Your task to perform on an android device: Go to Reddit.com Image 0: 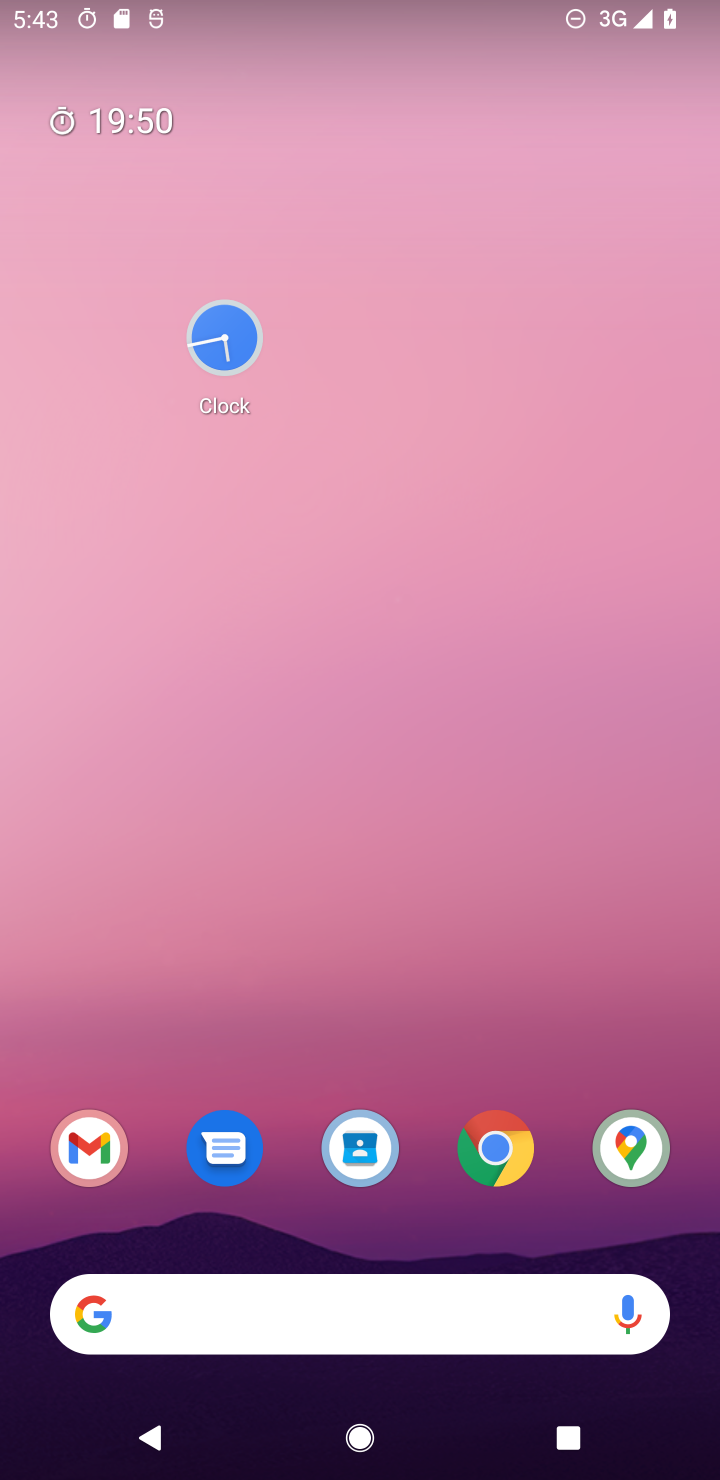
Step 0: drag from (402, 639) to (339, 40)
Your task to perform on an android device: Go to Reddit.com Image 1: 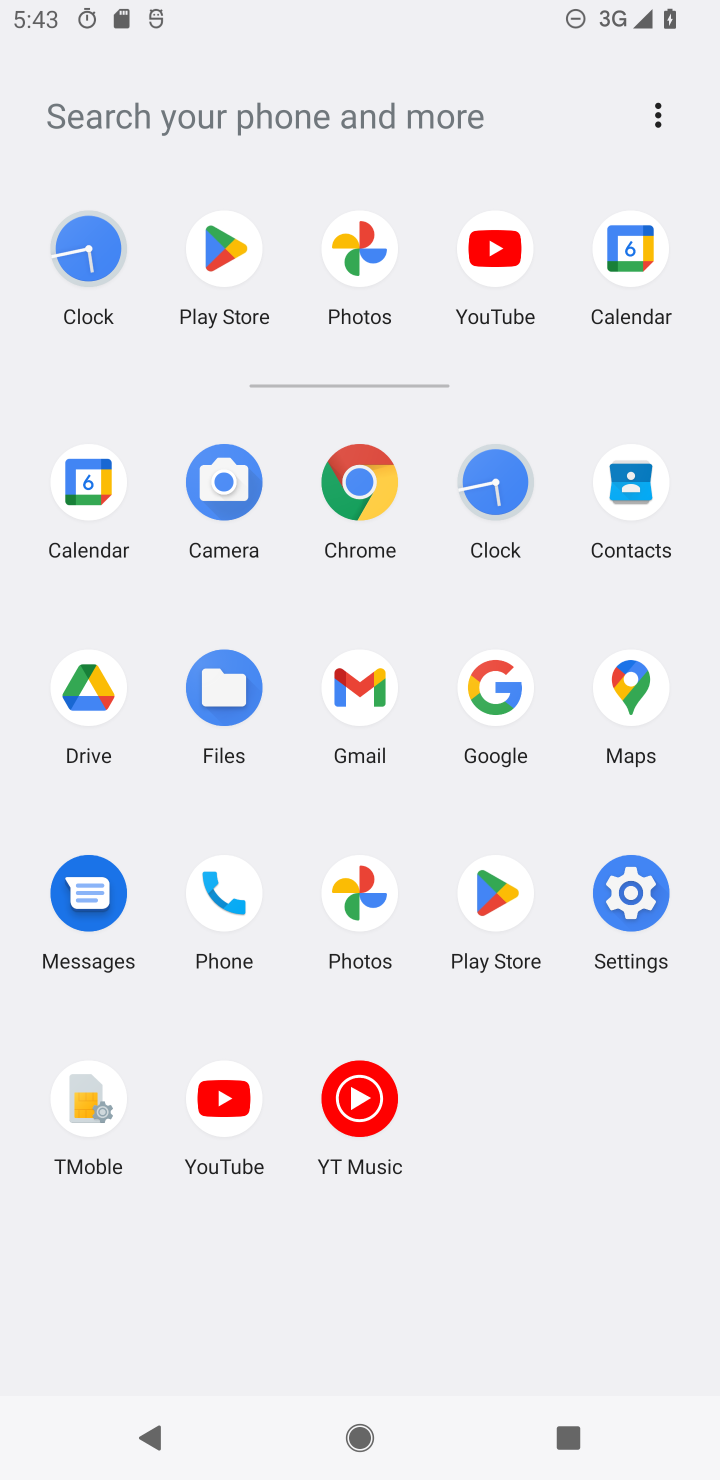
Step 1: click (369, 475)
Your task to perform on an android device: Go to Reddit.com Image 2: 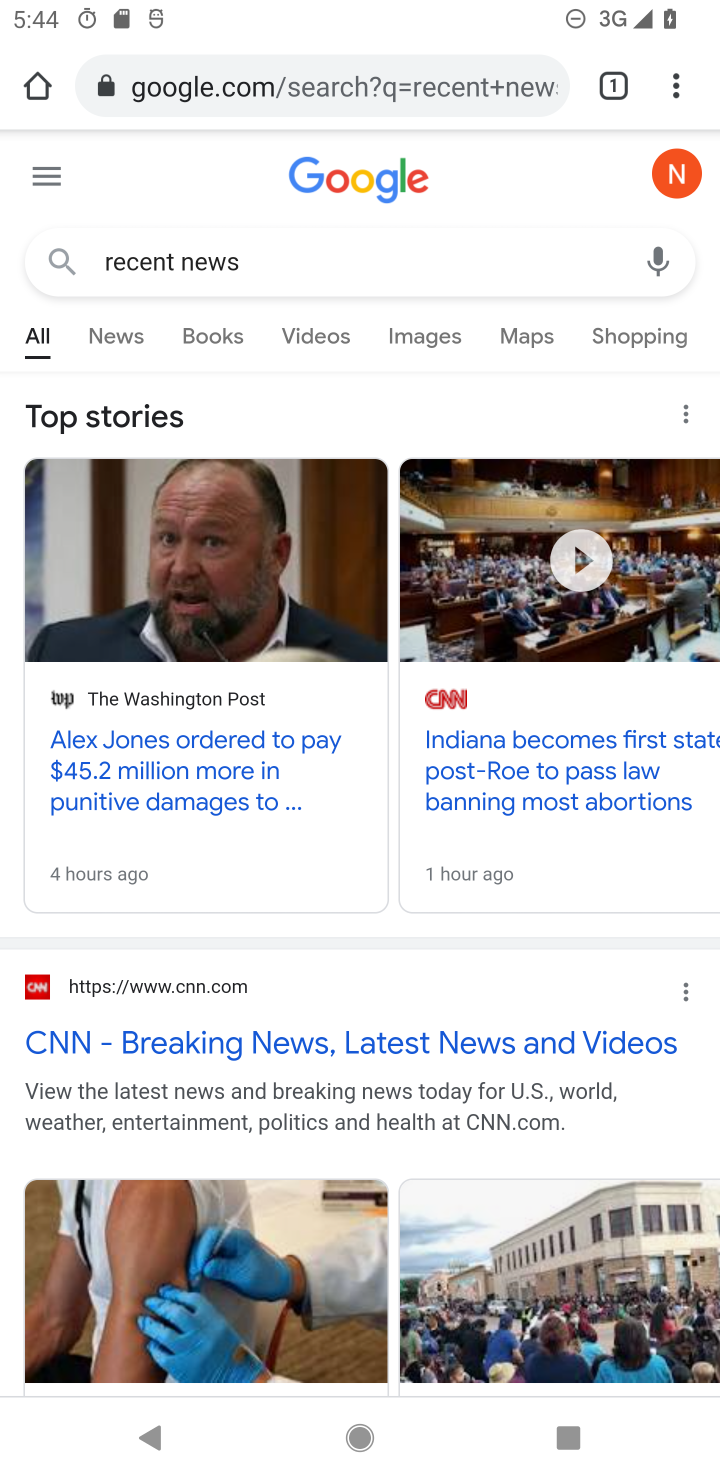
Step 2: click (395, 88)
Your task to perform on an android device: Go to Reddit.com Image 3: 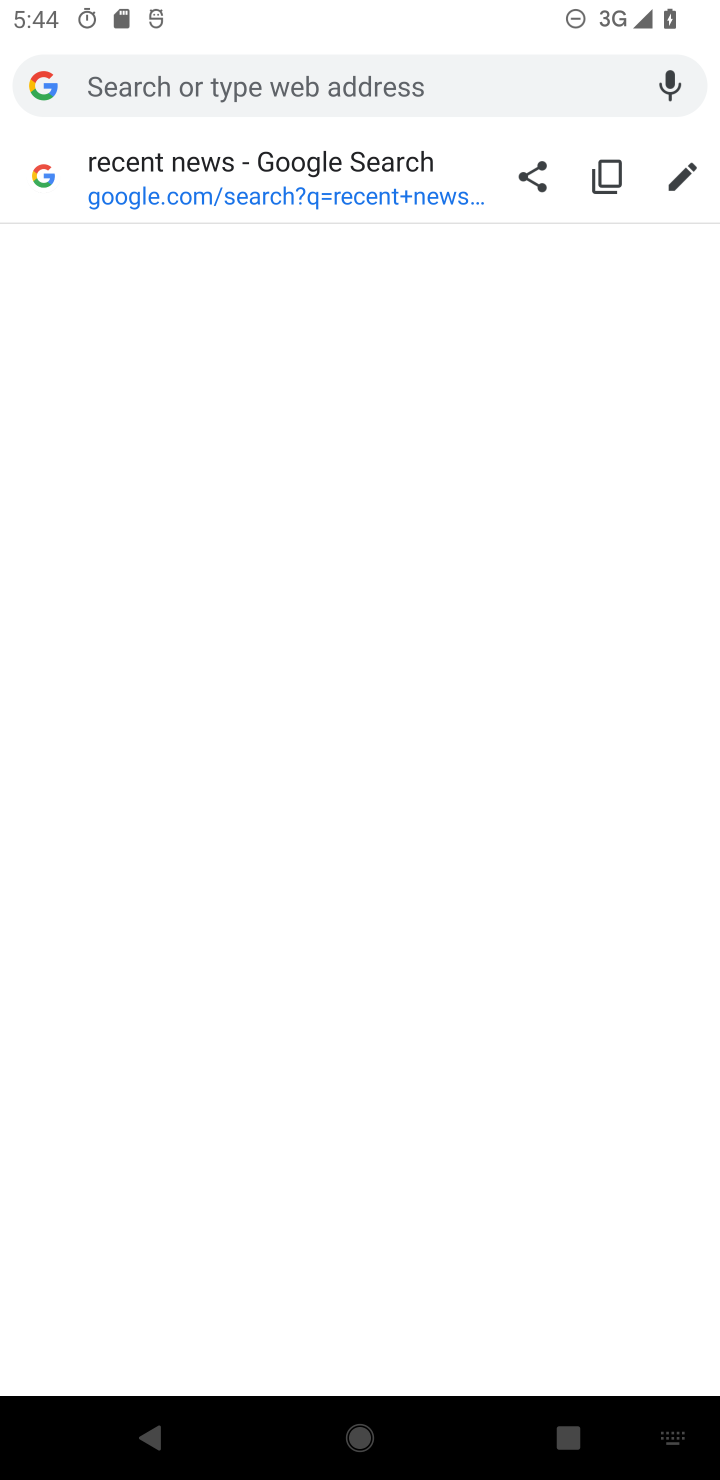
Step 3: type "reddit.com"
Your task to perform on an android device: Go to Reddit.com Image 4: 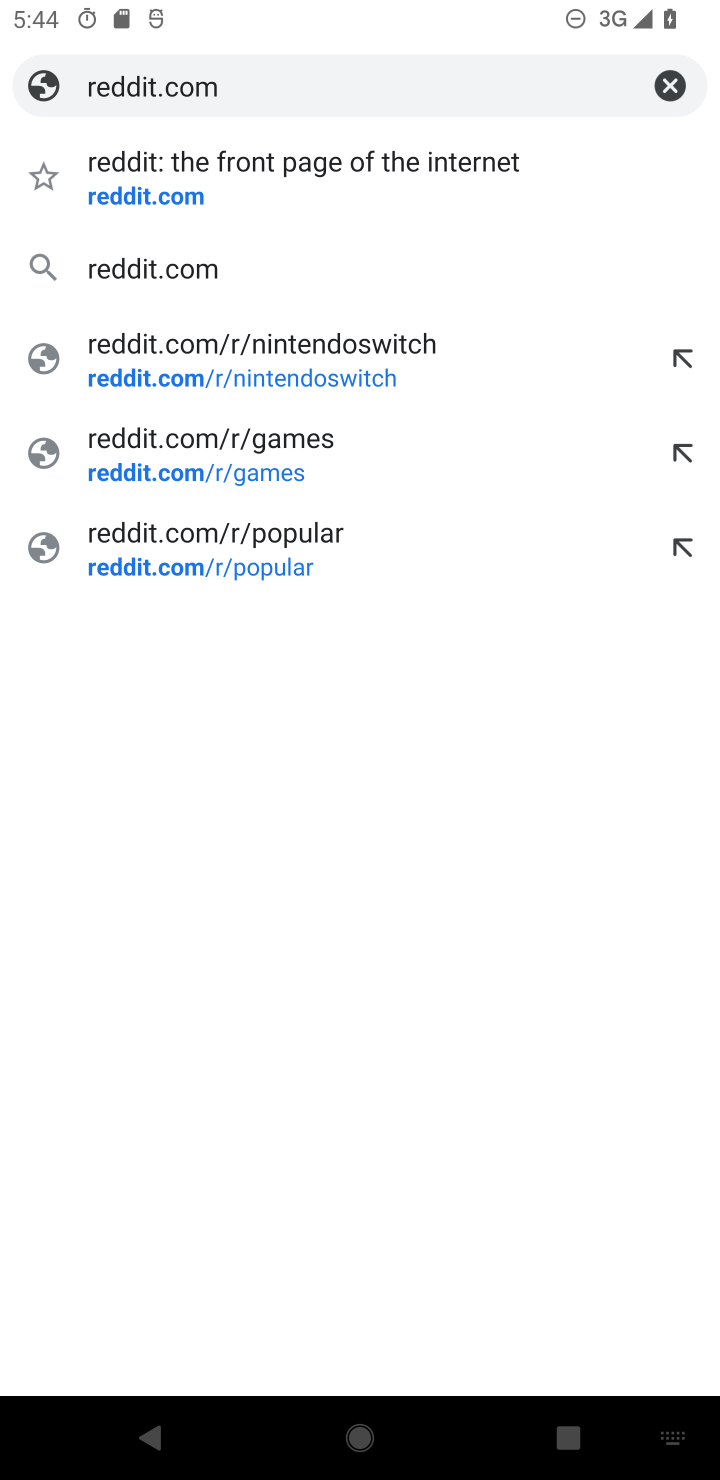
Step 4: click (181, 179)
Your task to perform on an android device: Go to Reddit.com Image 5: 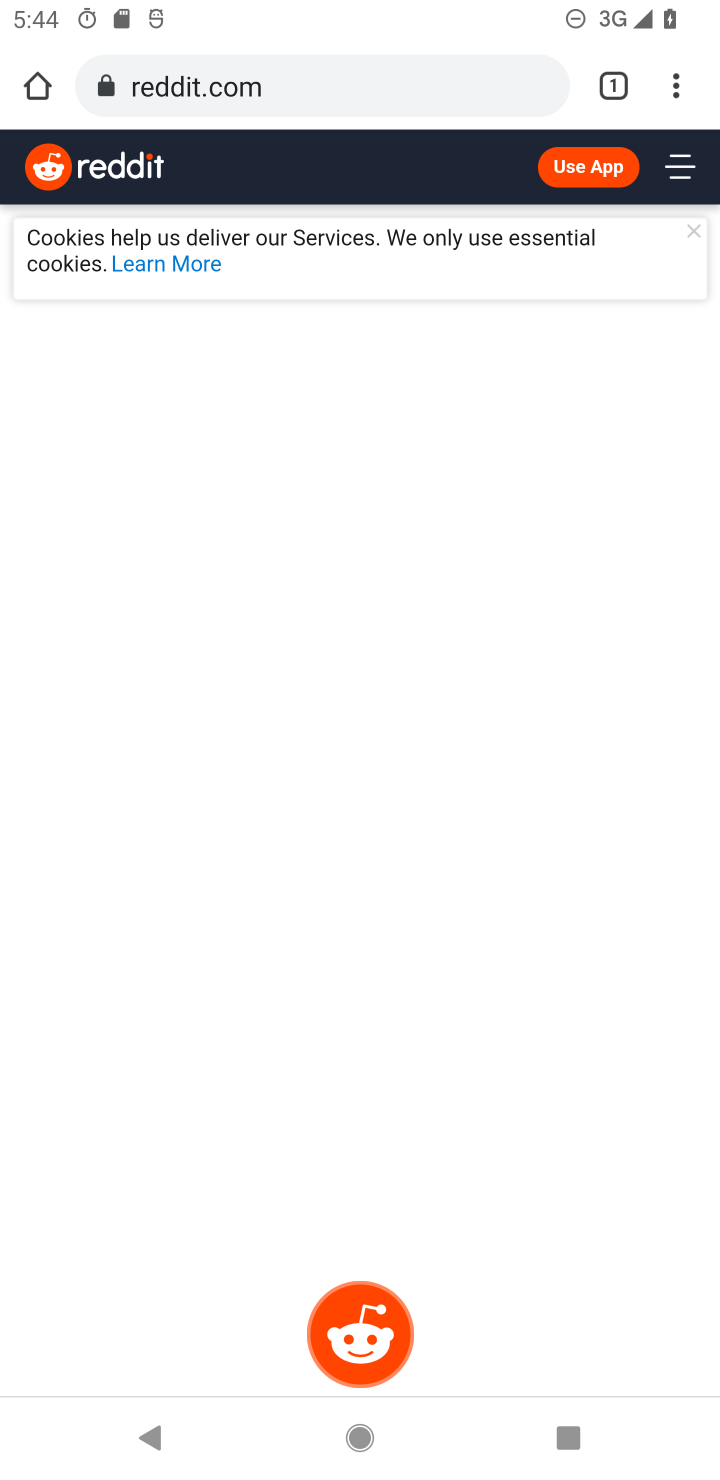
Step 5: drag from (533, 738) to (640, 334)
Your task to perform on an android device: Go to Reddit.com Image 6: 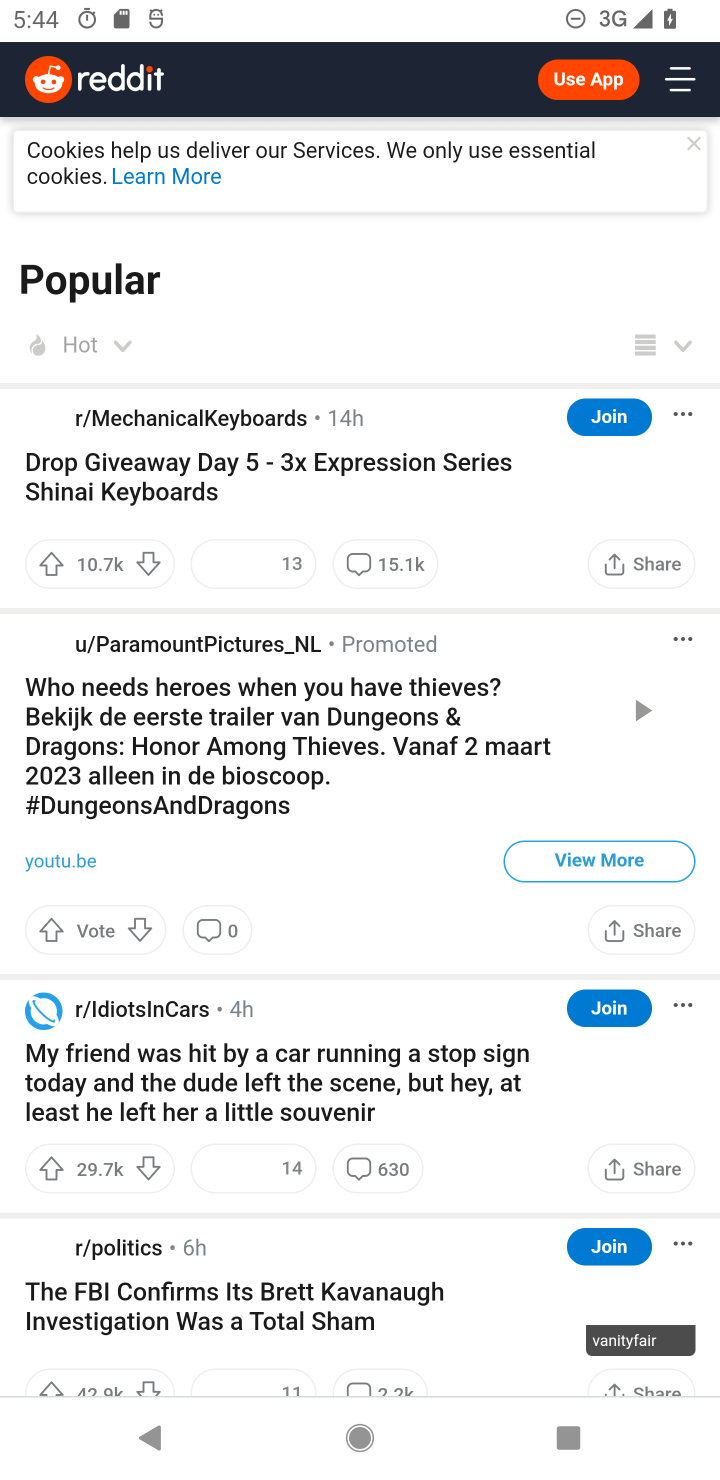
Step 6: drag from (513, 905) to (576, 454)
Your task to perform on an android device: Go to Reddit.com Image 7: 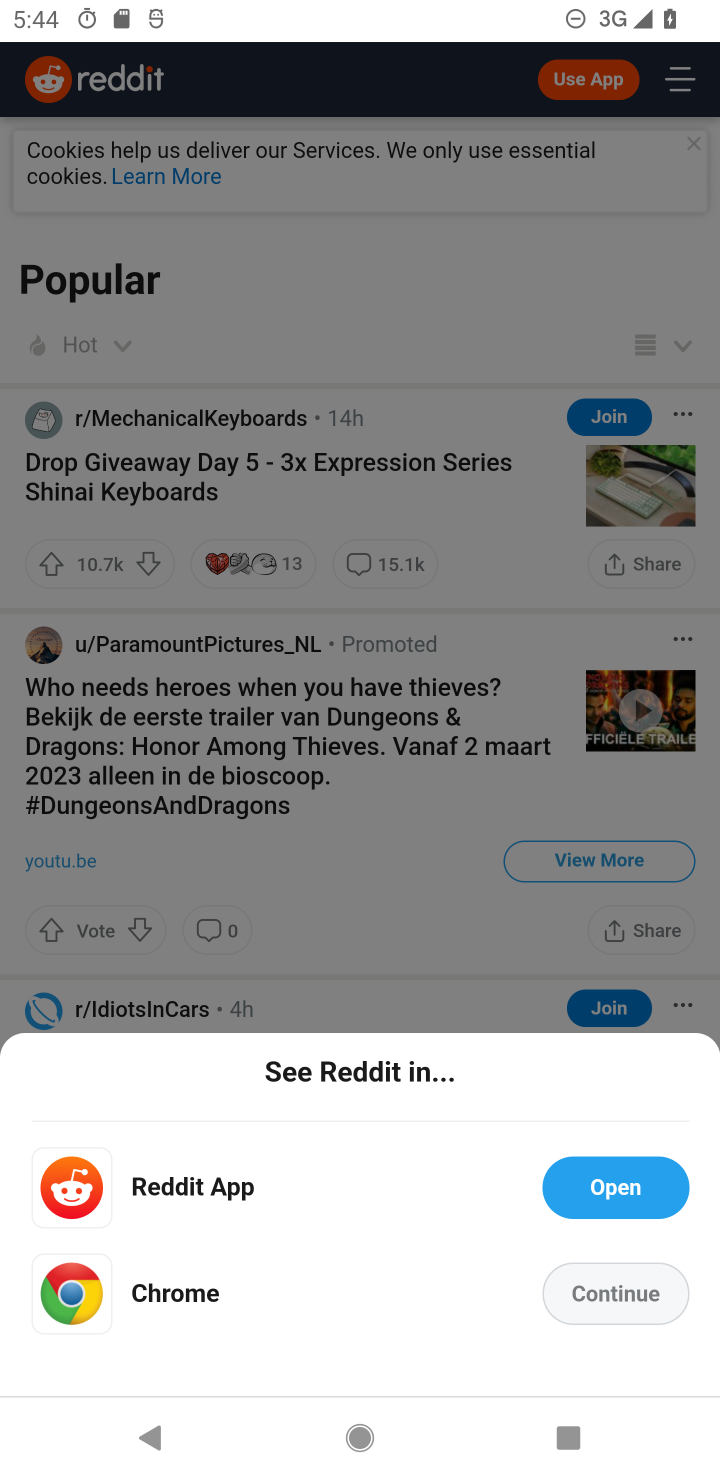
Step 7: click (313, 53)
Your task to perform on an android device: Go to Reddit.com Image 8: 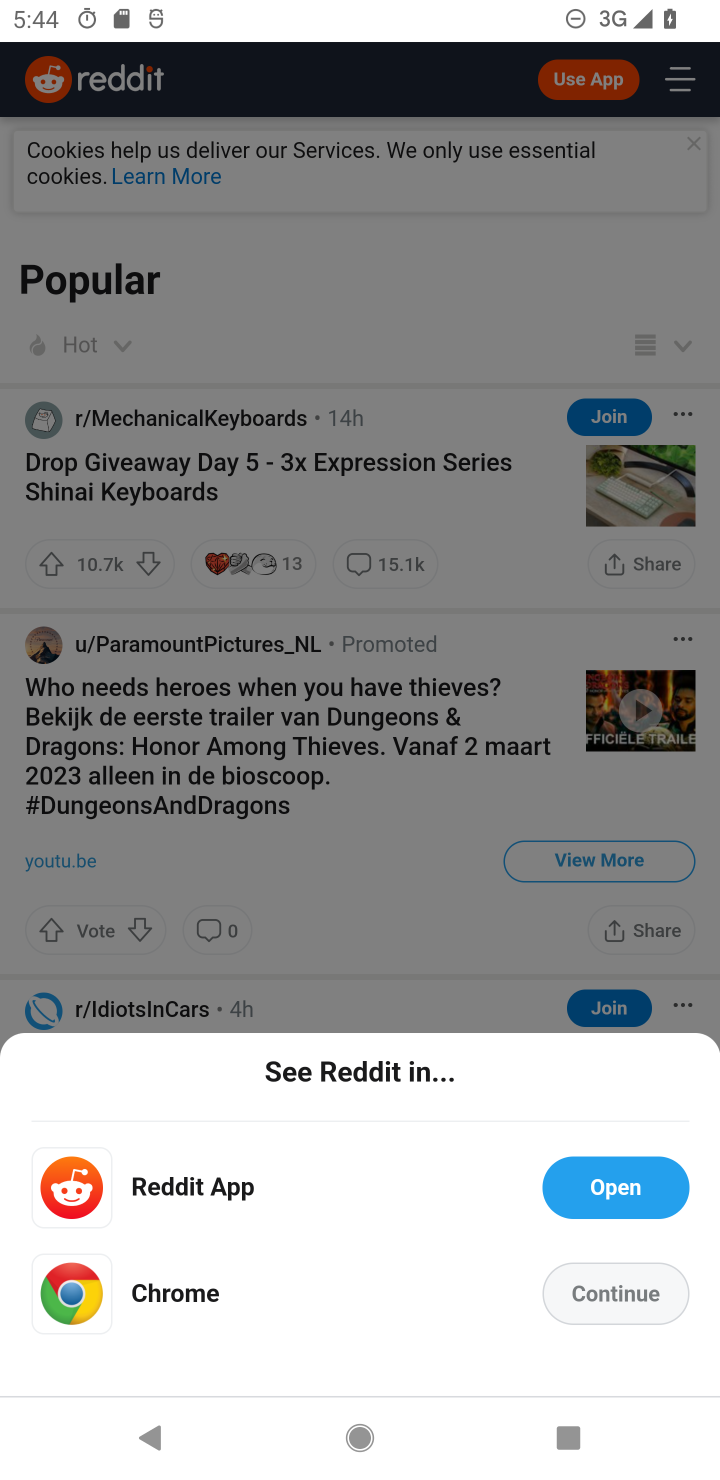
Step 8: task complete